Your task to perform on an android device: toggle data saver in the chrome app Image 0: 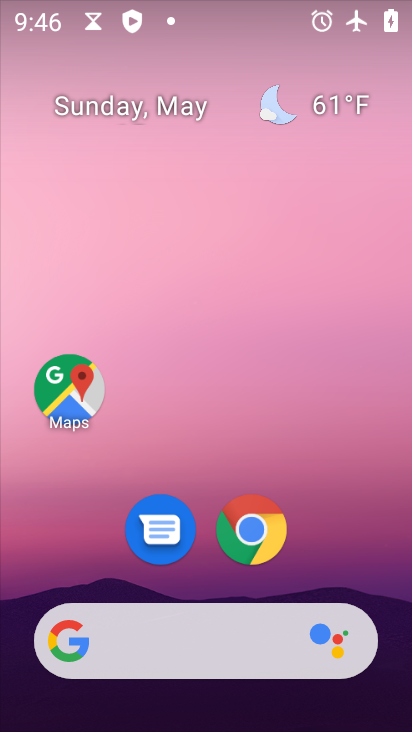
Step 0: click (253, 522)
Your task to perform on an android device: toggle data saver in the chrome app Image 1: 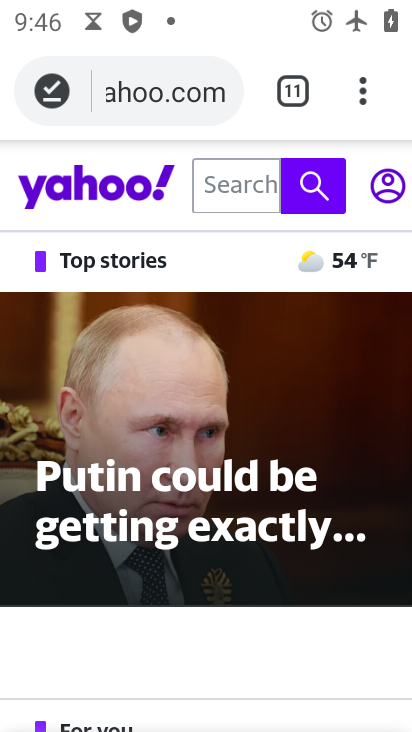
Step 1: click (363, 101)
Your task to perform on an android device: toggle data saver in the chrome app Image 2: 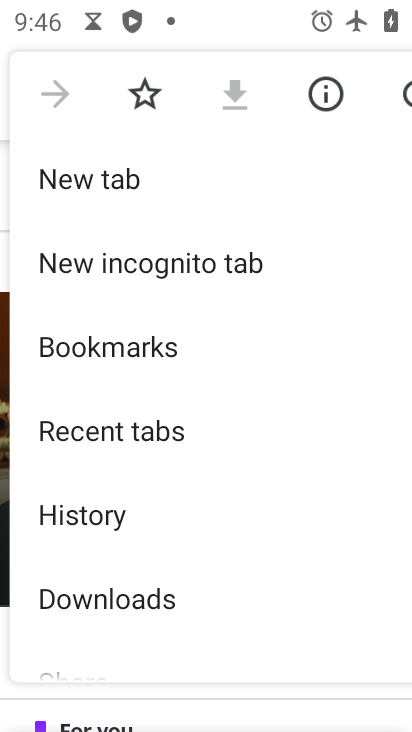
Step 2: drag from (218, 627) to (210, 199)
Your task to perform on an android device: toggle data saver in the chrome app Image 3: 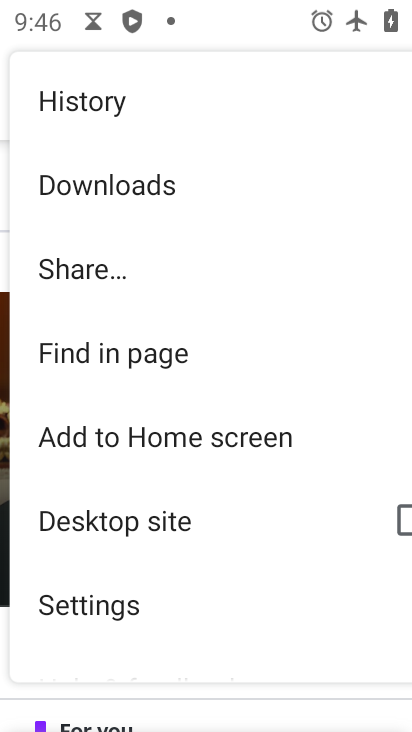
Step 3: click (104, 593)
Your task to perform on an android device: toggle data saver in the chrome app Image 4: 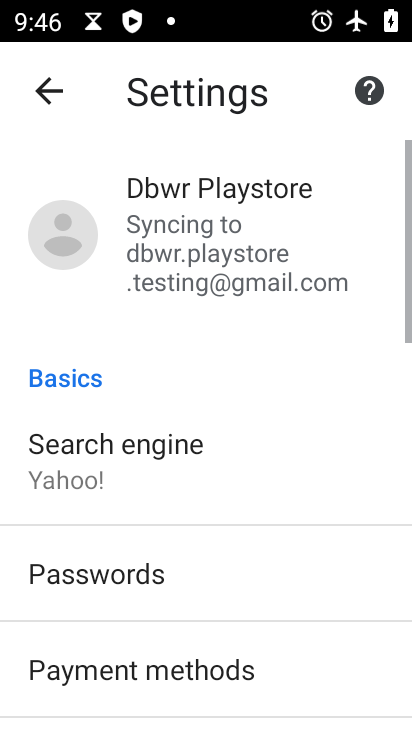
Step 4: drag from (143, 666) to (148, 283)
Your task to perform on an android device: toggle data saver in the chrome app Image 5: 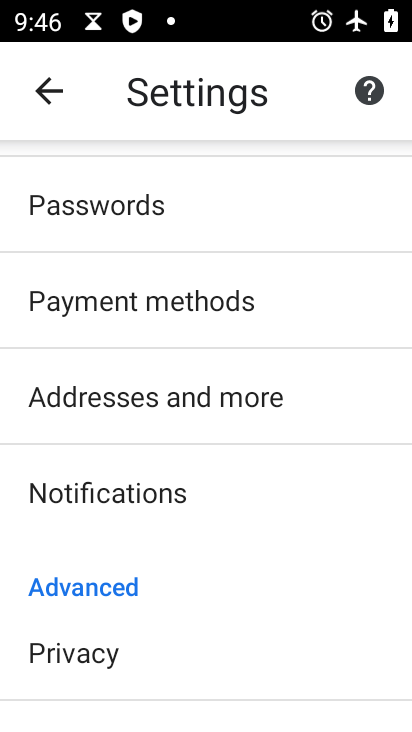
Step 5: drag from (82, 687) to (81, 301)
Your task to perform on an android device: toggle data saver in the chrome app Image 6: 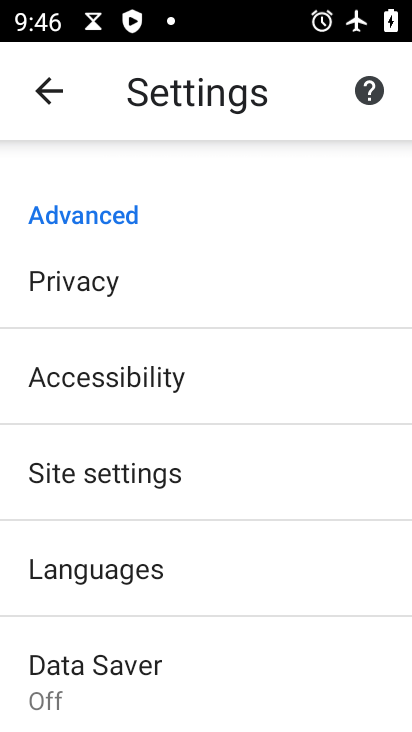
Step 6: click (100, 664)
Your task to perform on an android device: toggle data saver in the chrome app Image 7: 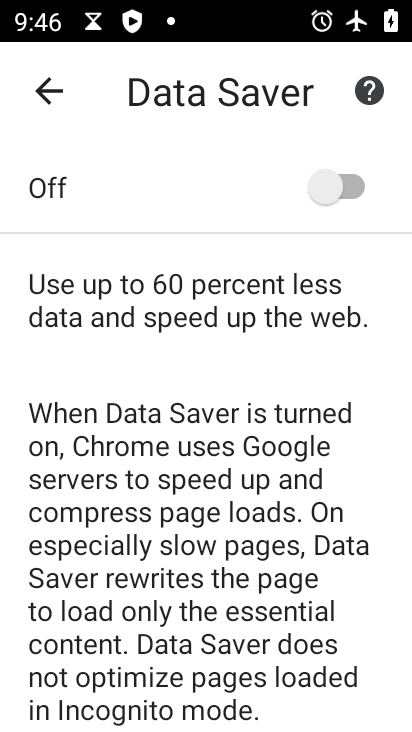
Step 7: click (347, 189)
Your task to perform on an android device: toggle data saver in the chrome app Image 8: 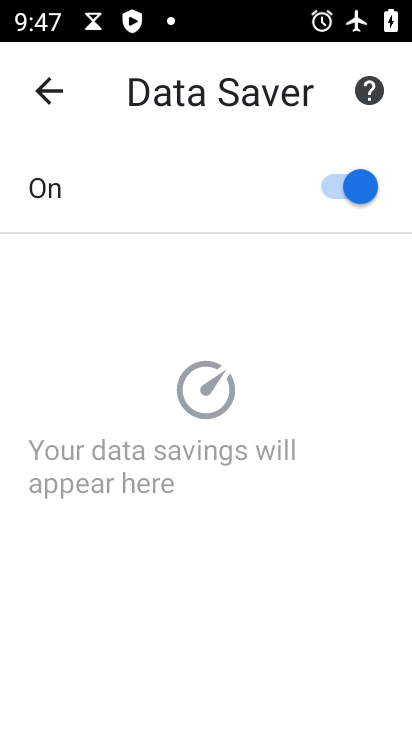
Step 8: task complete